Your task to perform on an android device: Open Yahoo.com Image 0: 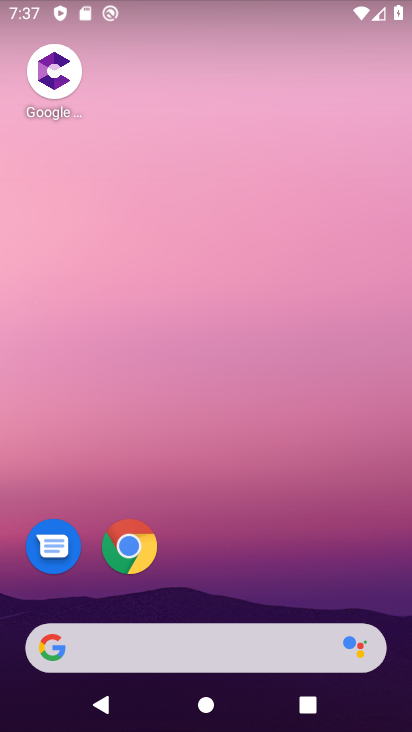
Step 0: click (148, 548)
Your task to perform on an android device: Open Yahoo.com Image 1: 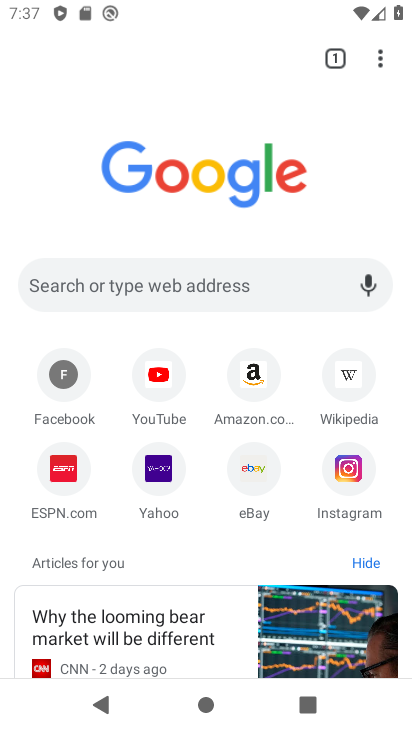
Step 1: click (156, 474)
Your task to perform on an android device: Open Yahoo.com Image 2: 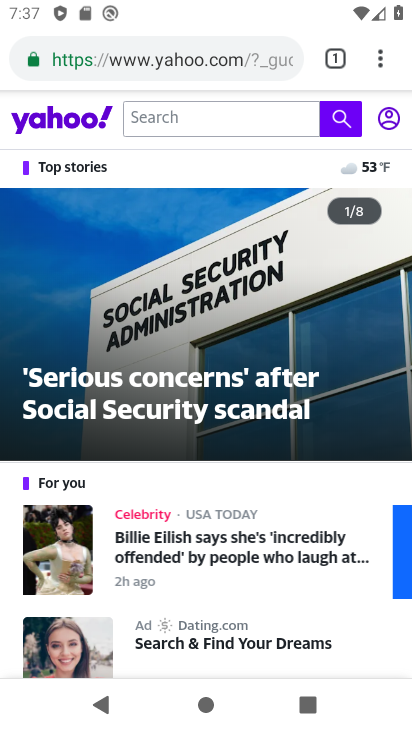
Step 2: task complete